Your task to perform on an android device: delete a single message in the gmail app Image 0: 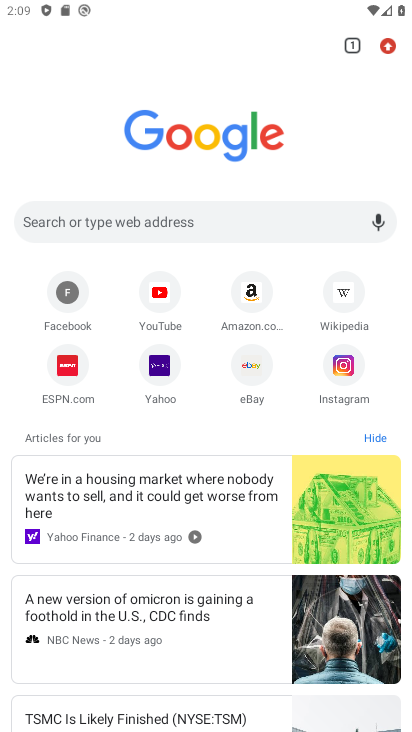
Step 0: press home button
Your task to perform on an android device: delete a single message in the gmail app Image 1: 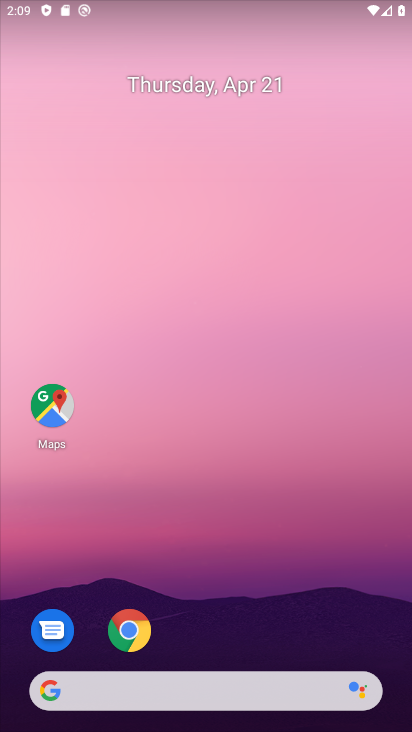
Step 1: drag from (315, 610) to (311, 217)
Your task to perform on an android device: delete a single message in the gmail app Image 2: 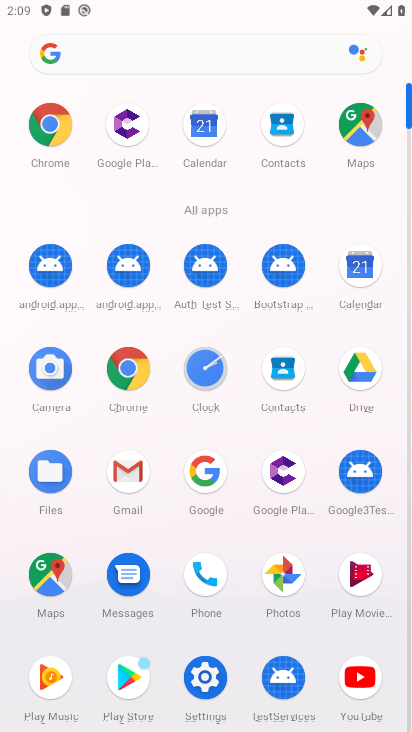
Step 2: click (126, 474)
Your task to perform on an android device: delete a single message in the gmail app Image 3: 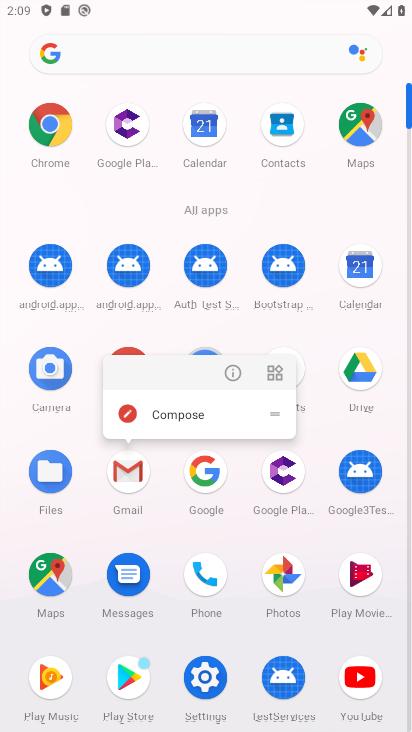
Step 3: click (126, 474)
Your task to perform on an android device: delete a single message in the gmail app Image 4: 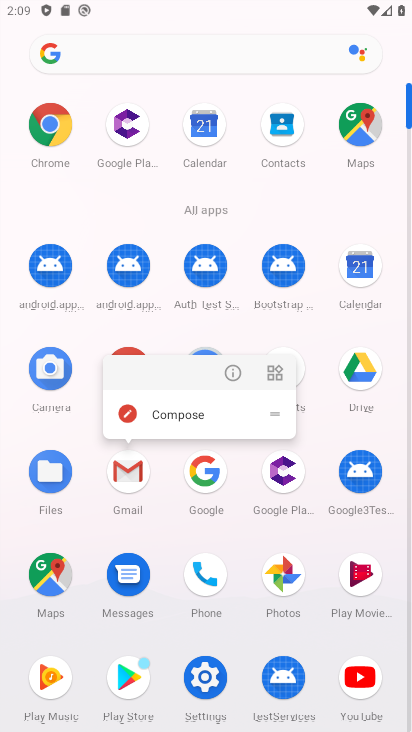
Step 4: click (126, 474)
Your task to perform on an android device: delete a single message in the gmail app Image 5: 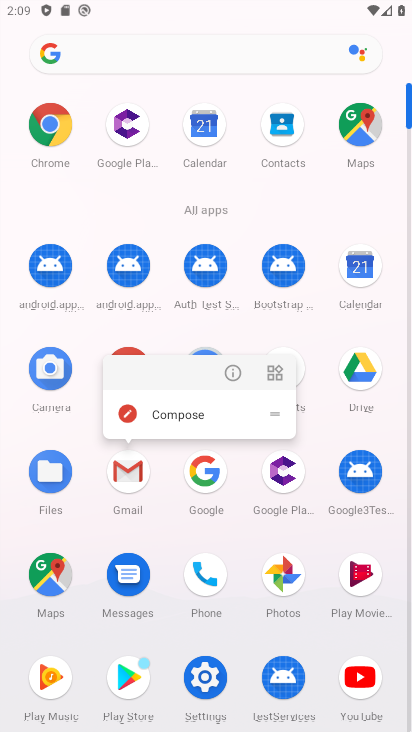
Step 5: click (230, 521)
Your task to perform on an android device: delete a single message in the gmail app Image 6: 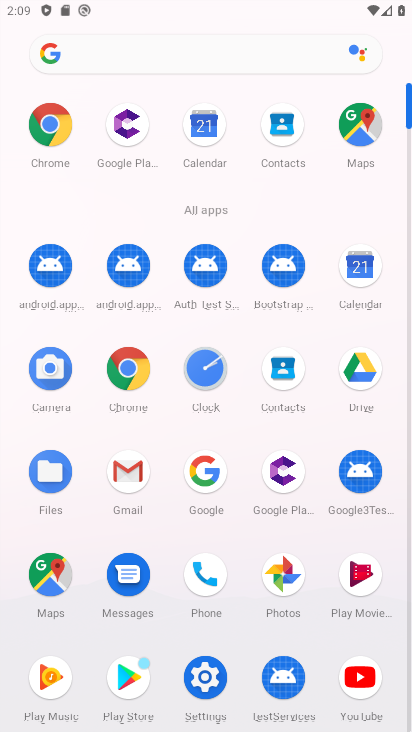
Step 6: click (129, 485)
Your task to perform on an android device: delete a single message in the gmail app Image 7: 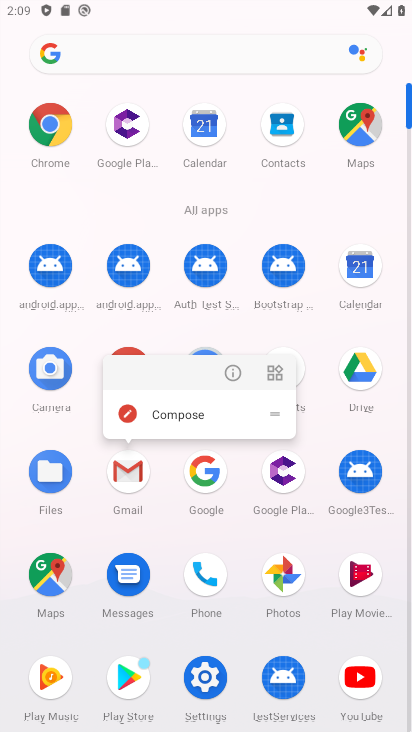
Step 7: click (129, 485)
Your task to perform on an android device: delete a single message in the gmail app Image 8: 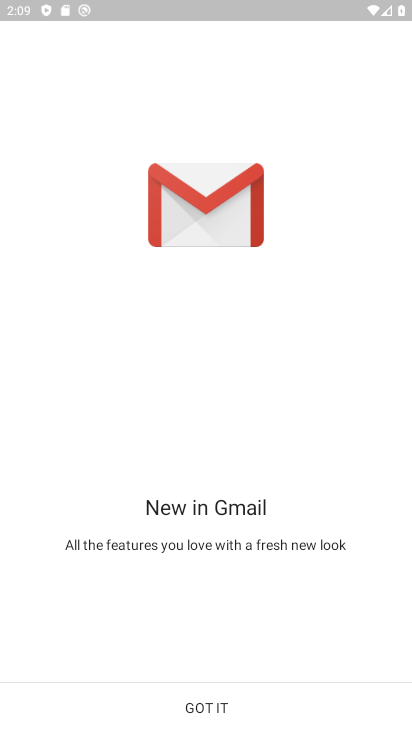
Step 8: click (235, 701)
Your task to perform on an android device: delete a single message in the gmail app Image 9: 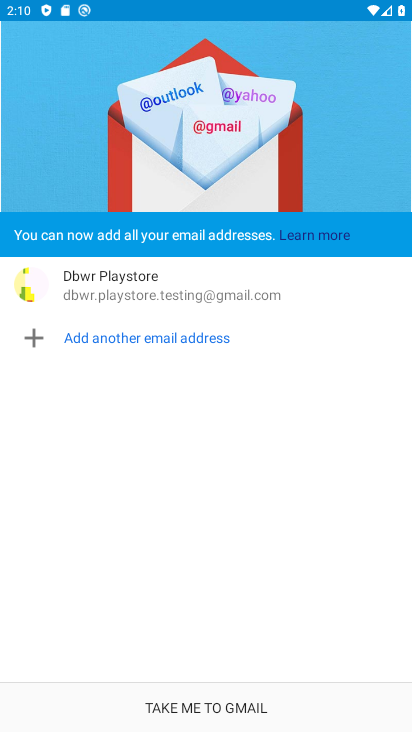
Step 9: click (235, 699)
Your task to perform on an android device: delete a single message in the gmail app Image 10: 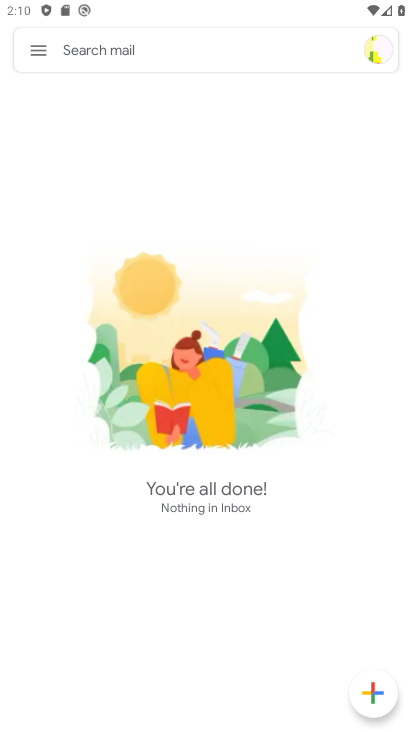
Step 10: task complete